Your task to perform on an android device: Search for seafood restaurants on Google Maps Image 0: 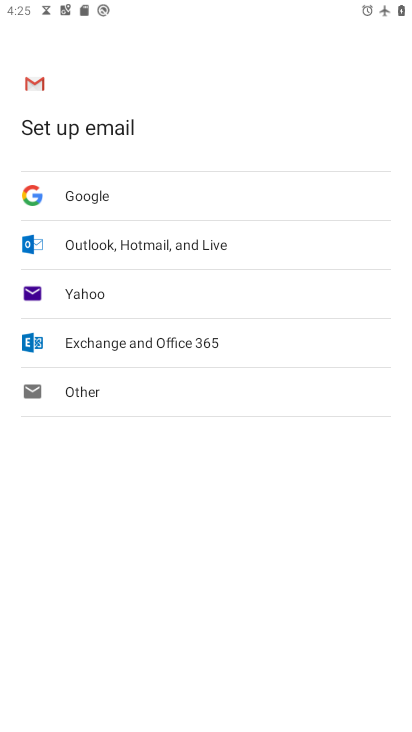
Step 0: press back button
Your task to perform on an android device: Search for seafood restaurants on Google Maps Image 1: 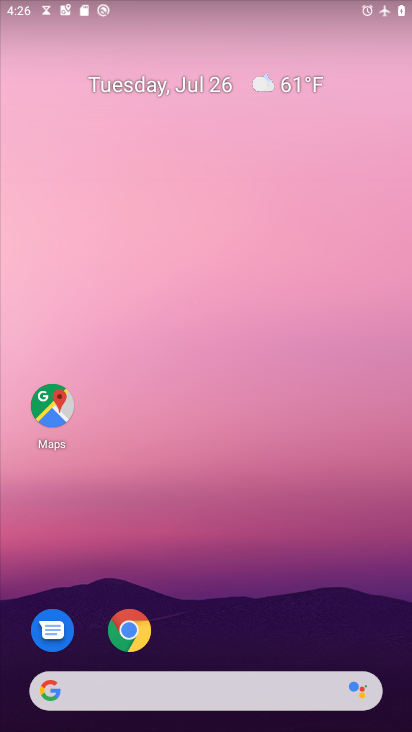
Step 1: drag from (153, 247) to (146, 174)
Your task to perform on an android device: Search for seafood restaurants on Google Maps Image 2: 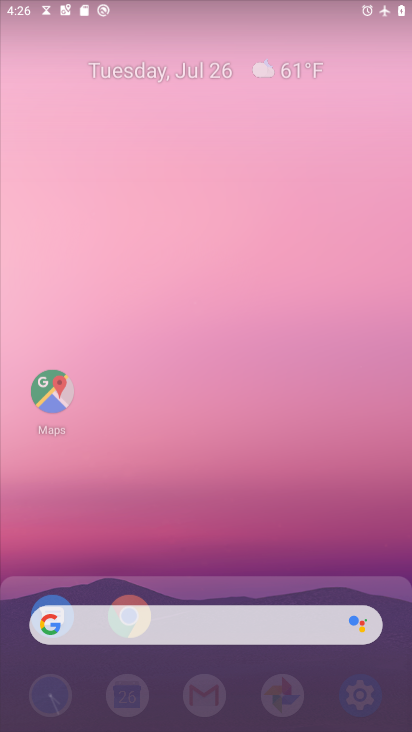
Step 2: drag from (223, 542) to (218, 94)
Your task to perform on an android device: Search for seafood restaurants on Google Maps Image 3: 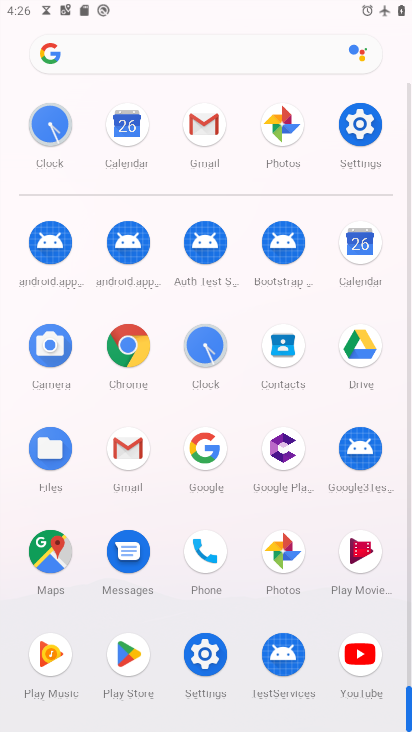
Step 3: drag from (101, 515) to (16, 142)
Your task to perform on an android device: Search for seafood restaurants on Google Maps Image 4: 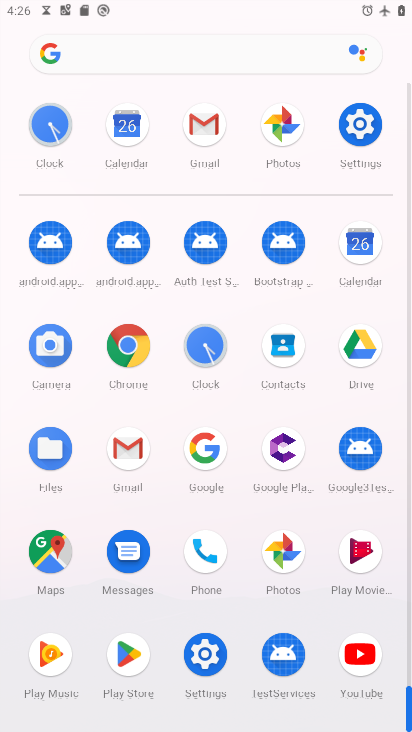
Step 4: click (51, 555)
Your task to perform on an android device: Search for seafood restaurants on Google Maps Image 5: 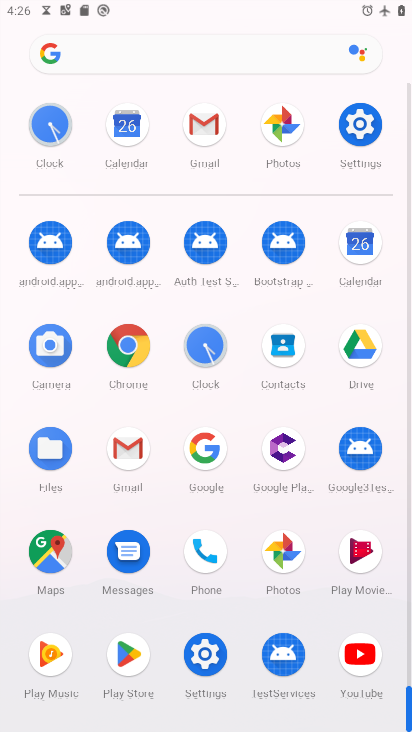
Step 5: click (53, 557)
Your task to perform on an android device: Search for seafood restaurants on Google Maps Image 6: 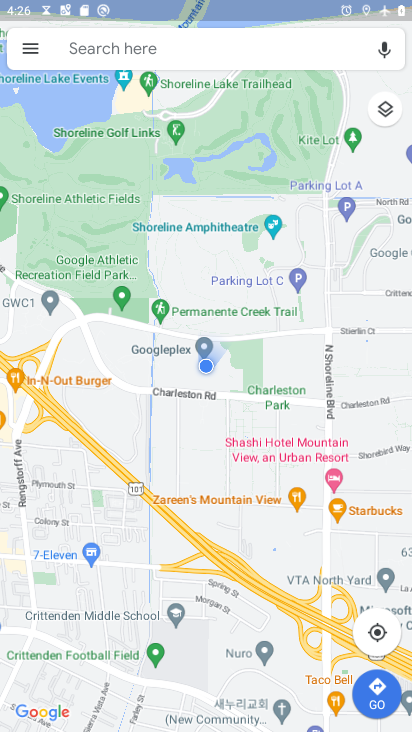
Step 6: click (89, 52)
Your task to perform on an android device: Search for seafood restaurants on Google Maps Image 7: 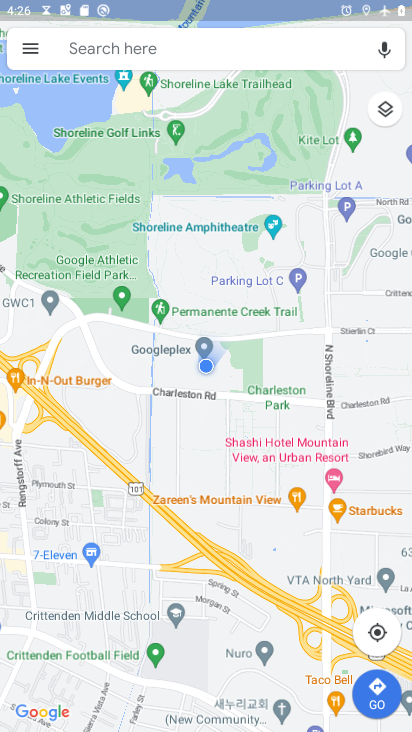
Step 7: click (97, 56)
Your task to perform on an android device: Search for seafood restaurants on Google Maps Image 8: 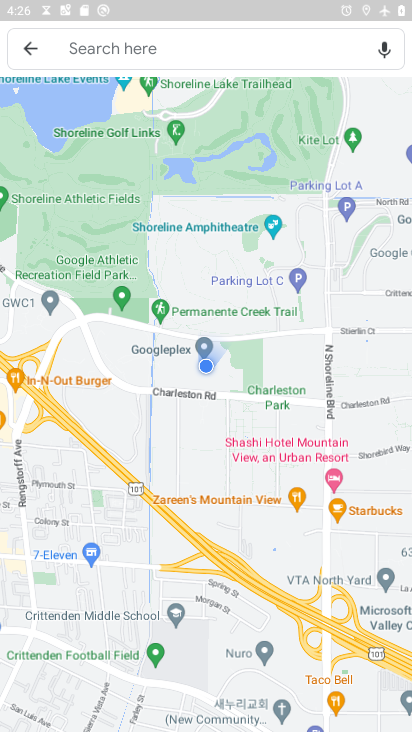
Step 8: click (97, 56)
Your task to perform on an android device: Search for seafood restaurants on Google Maps Image 9: 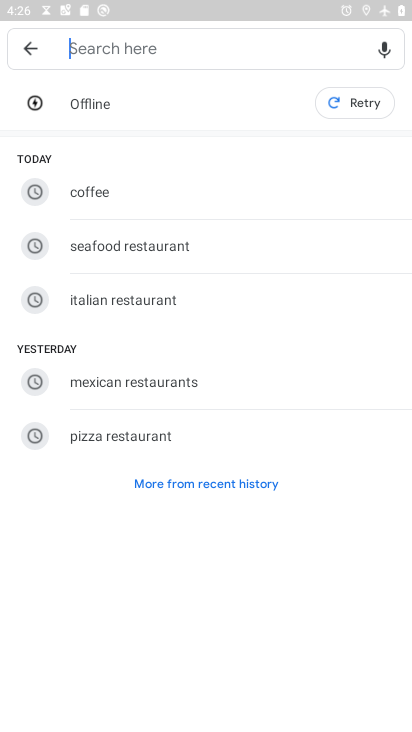
Step 9: click (98, 57)
Your task to perform on an android device: Search for seafood restaurants on Google Maps Image 10: 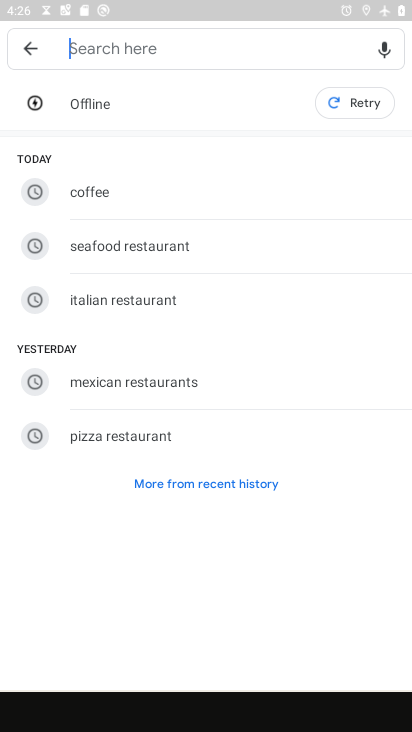
Step 10: click (98, 43)
Your task to perform on an android device: Search for seafood restaurants on Google Maps Image 11: 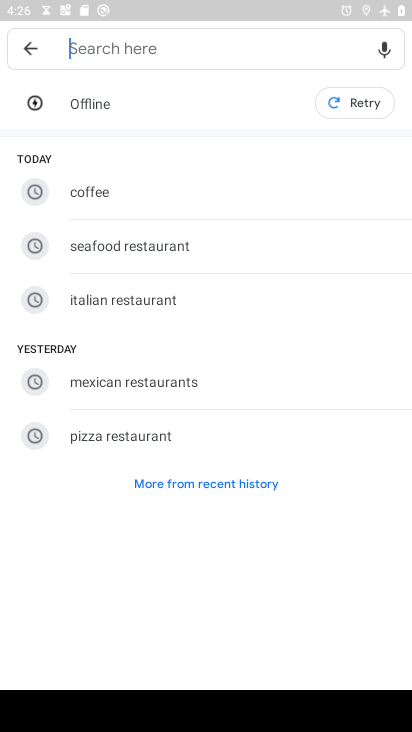
Step 11: click (71, 52)
Your task to perform on an android device: Search for seafood restaurants on Google Maps Image 12: 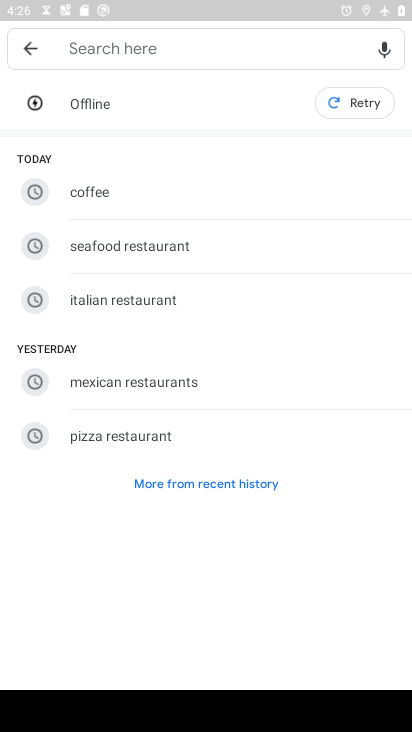
Step 12: click (101, 229)
Your task to perform on an android device: Search for seafood restaurants on Google Maps Image 13: 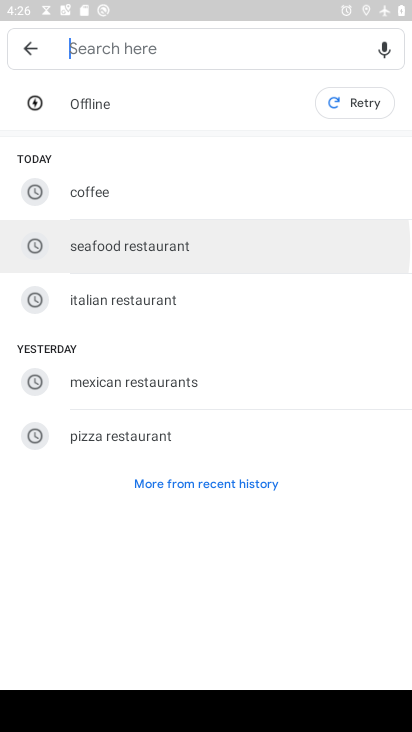
Step 13: click (106, 241)
Your task to perform on an android device: Search for seafood restaurants on Google Maps Image 14: 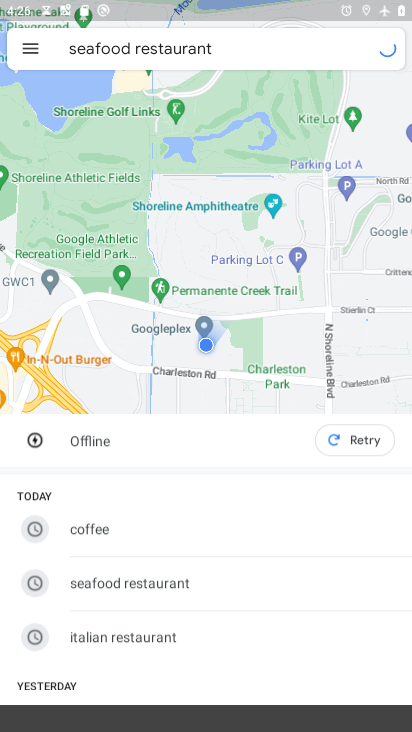
Step 14: click (112, 246)
Your task to perform on an android device: Search for seafood restaurants on Google Maps Image 15: 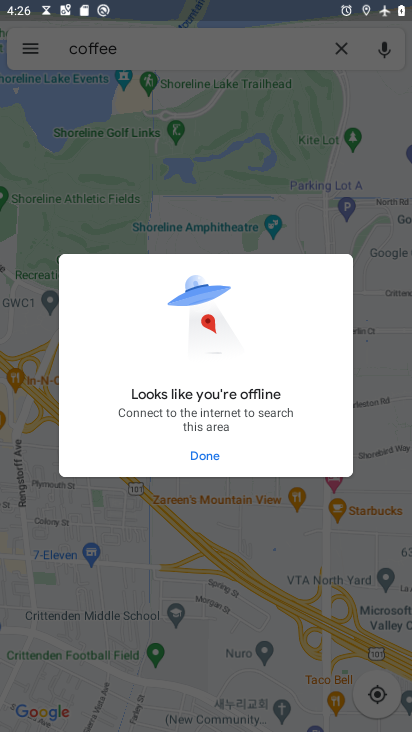
Step 15: click (337, 52)
Your task to perform on an android device: Search for seafood restaurants on Google Maps Image 16: 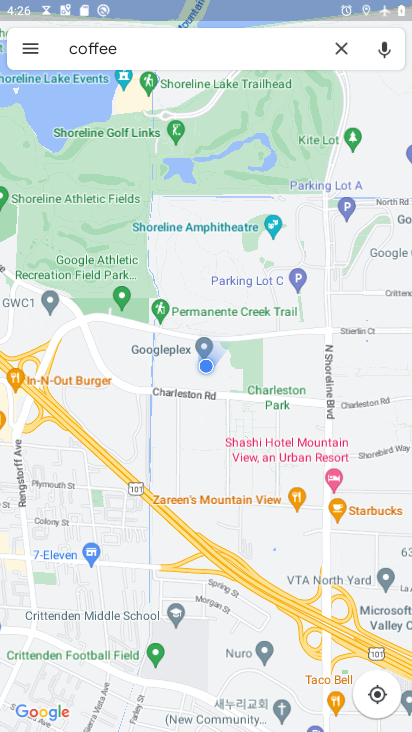
Step 16: task complete